Your task to perform on an android device: Go to settings Image 0: 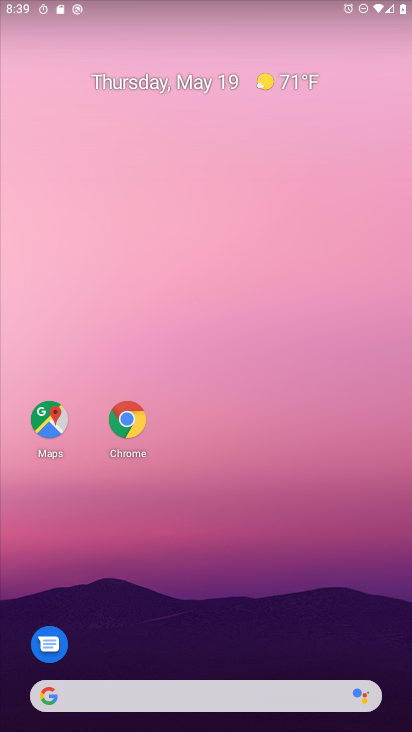
Step 0: drag from (168, 639) to (206, 297)
Your task to perform on an android device: Go to settings Image 1: 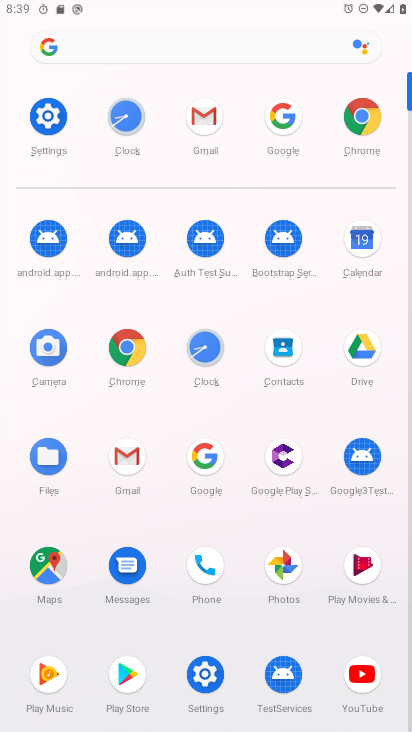
Step 1: click (50, 108)
Your task to perform on an android device: Go to settings Image 2: 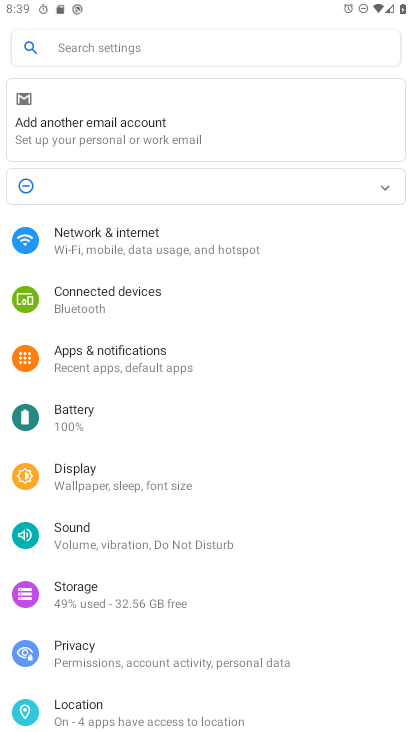
Step 2: task complete